Your task to perform on an android device: Go to calendar. Show me events next week Image 0: 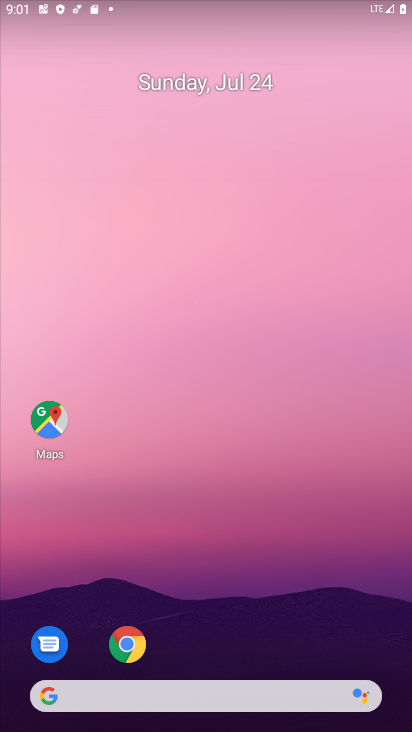
Step 0: drag from (31, 565) to (268, 87)
Your task to perform on an android device: Go to calendar. Show me events next week Image 1: 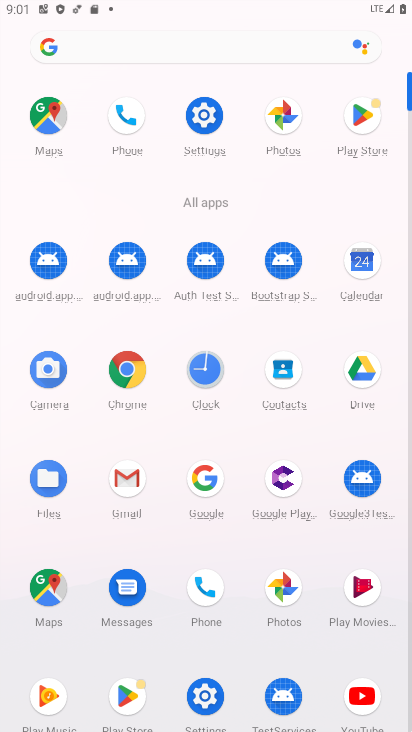
Step 1: click (368, 266)
Your task to perform on an android device: Go to calendar. Show me events next week Image 2: 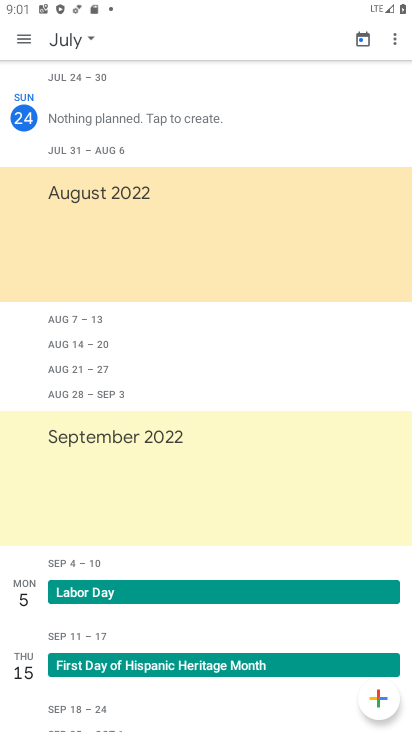
Step 2: click (64, 42)
Your task to perform on an android device: Go to calendar. Show me events next week Image 3: 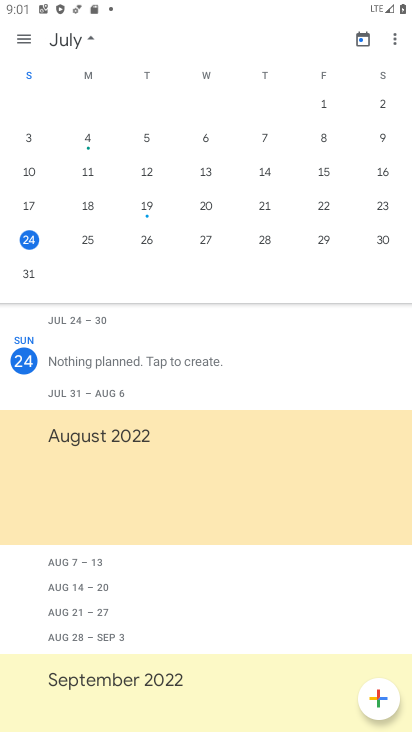
Step 3: drag from (391, 172) to (45, 102)
Your task to perform on an android device: Go to calendar. Show me events next week Image 4: 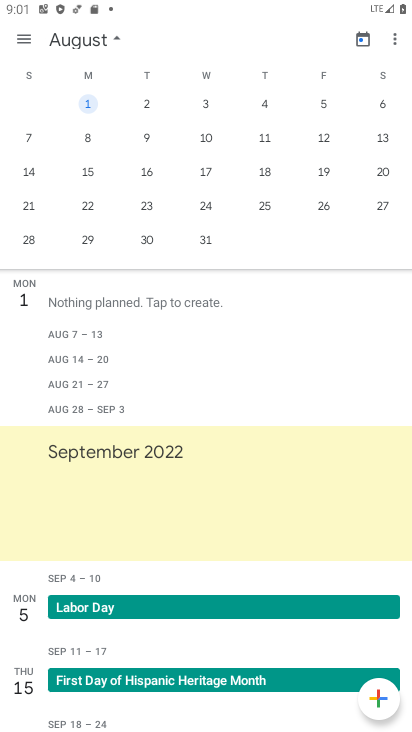
Step 4: click (91, 108)
Your task to perform on an android device: Go to calendar. Show me events next week Image 5: 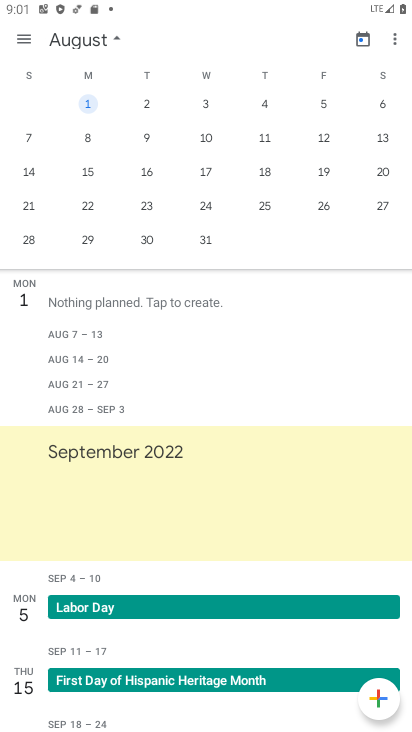
Step 5: click (148, 115)
Your task to perform on an android device: Go to calendar. Show me events next week Image 6: 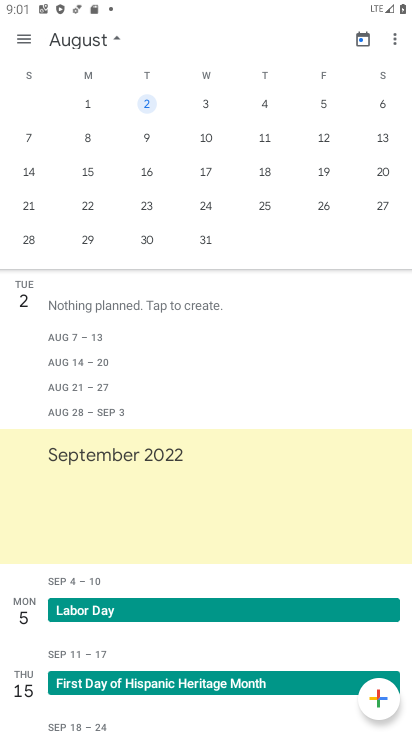
Step 6: click (223, 99)
Your task to perform on an android device: Go to calendar. Show me events next week Image 7: 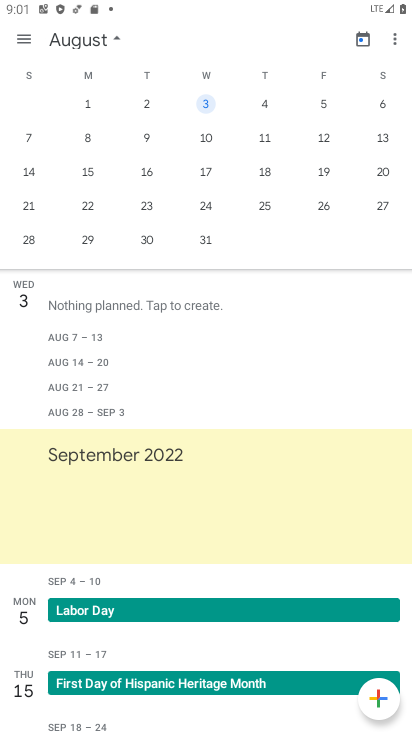
Step 7: click (263, 100)
Your task to perform on an android device: Go to calendar. Show me events next week Image 8: 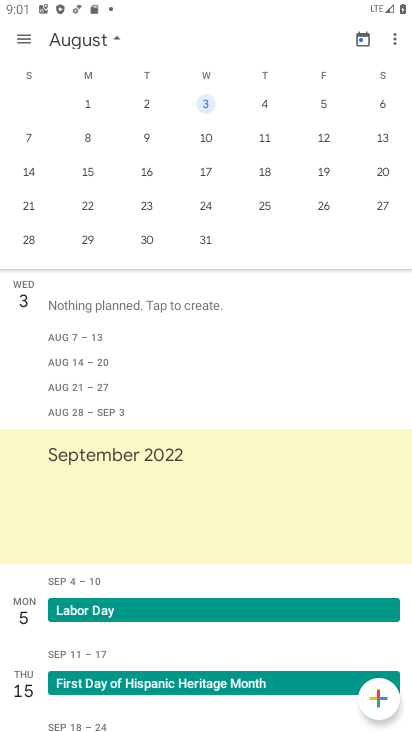
Step 8: click (261, 106)
Your task to perform on an android device: Go to calendar. Show me events next week Image 9: 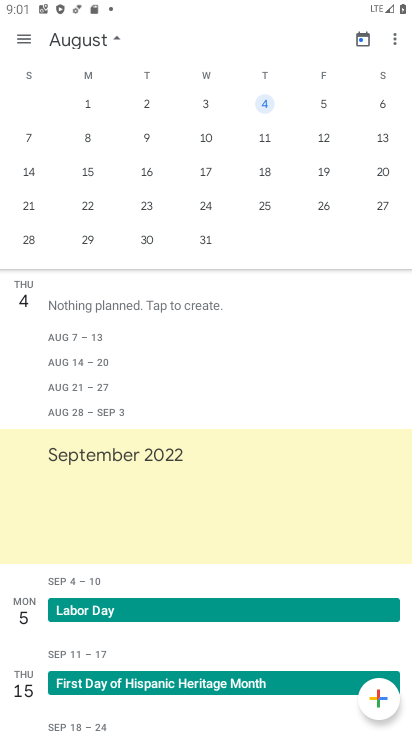
Step 9: click (316, 106)
Your task to perform on an android device: Go to calendar. Show me events next week Image 10: 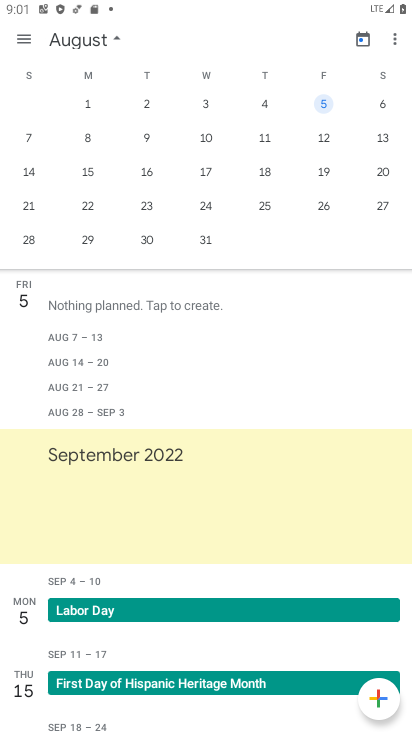
Step 10: click (387, 104)
Your task to perform on an android device: Go to calendar. Show me events next week Image 11: 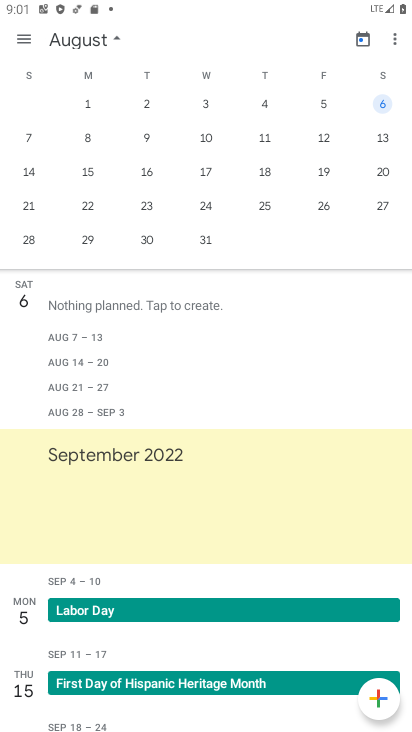
Step 11: task complete